Your task to perform on an android device: Go to location settings Image 0: 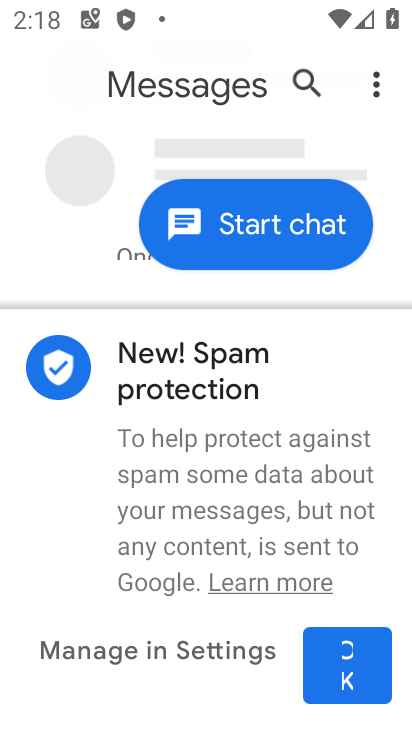
Step 0: press home button
Your task to perform on an android device: Go to location settings Image 1: 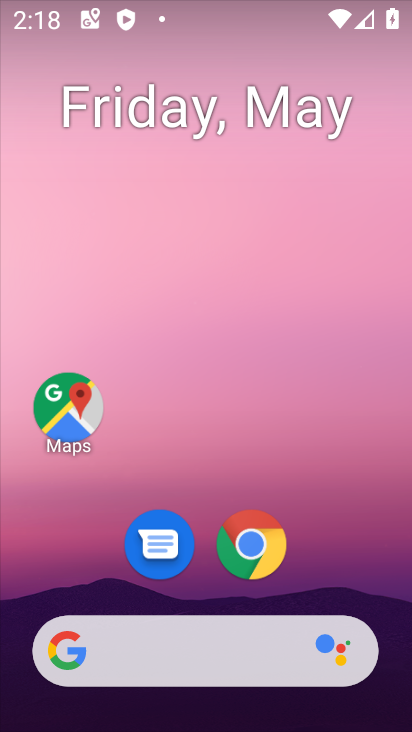
Step 1: drag from (208, 588) to (208, 176)
Your task to perform on an android device: Go to location settings Image 2: 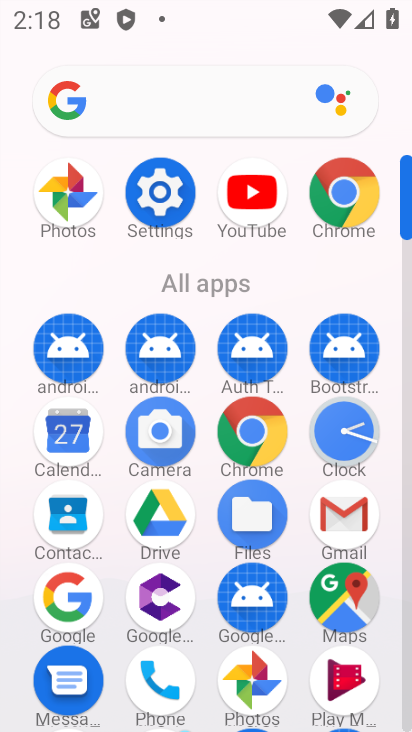
Step 2: click (161, 188)
Your task to perform on an android device: Go to location settings Image 3: 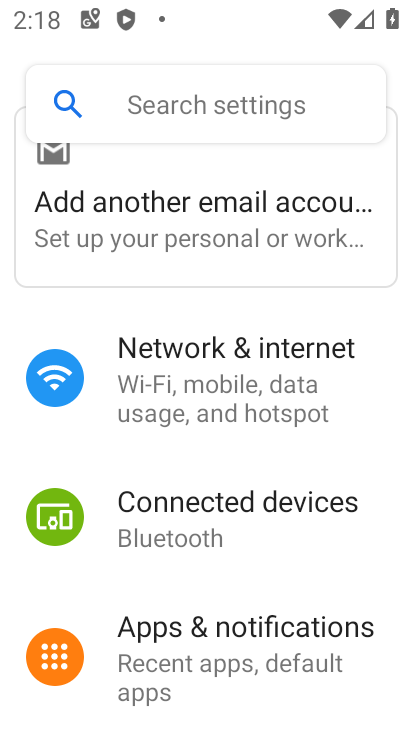
Step 3: drag from (237, 620) to (247, 347)
Your task to perform on an android device: Go to location settings Image 4: 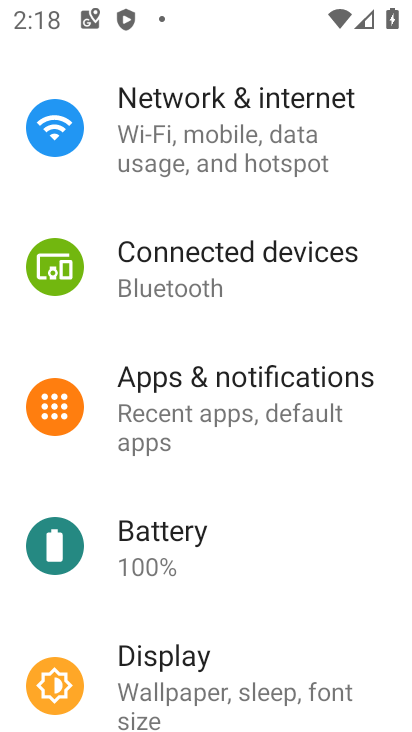
Step 4: drag from (191, 628) to (239, 326)
Your task to perform on an android device: Go to location settings Image 5: 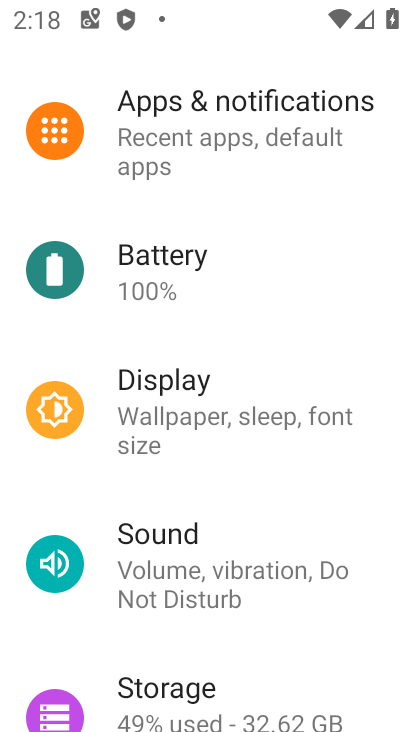
Step 5: drag from (223, 626) to (248, 361)
Your task to perform on an android device: Go to location settings Image 6: 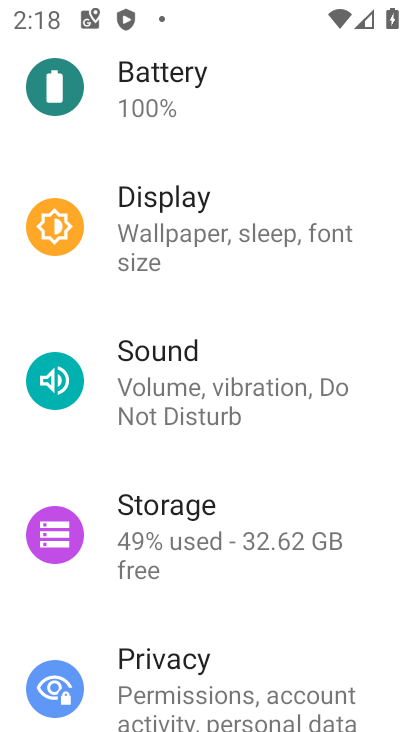
Step 6: drag from (243, 633) to (249, 408)
Your task to perform on an android device: Go to location settings Image 7: 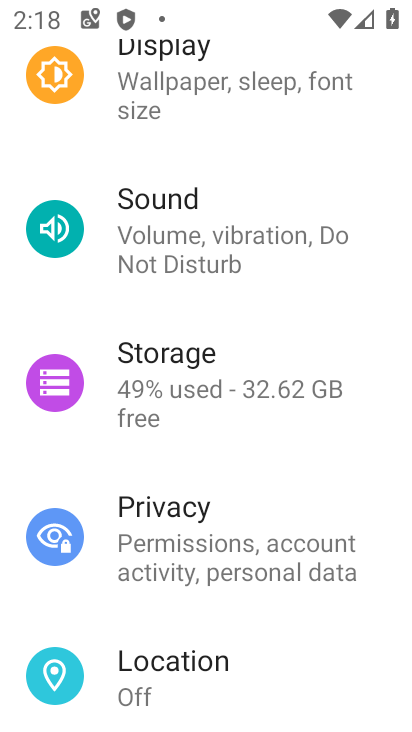
Step 7: click (213, 644)
Your task to perform on an android device: Go to location settings Image 8: 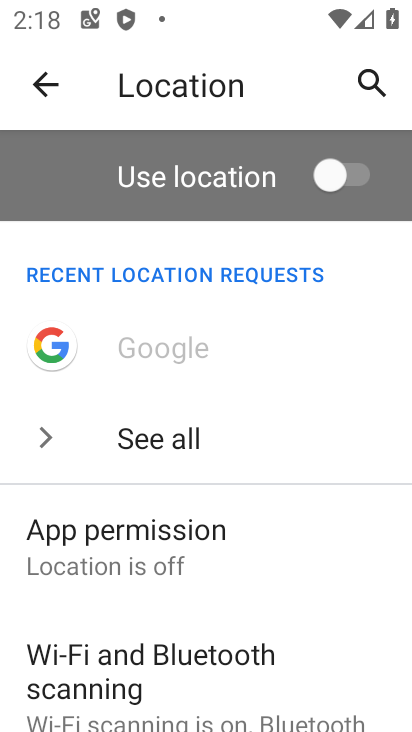
Step 8: task complete